Your task to perform on an android device: Open Amazon Image 0: 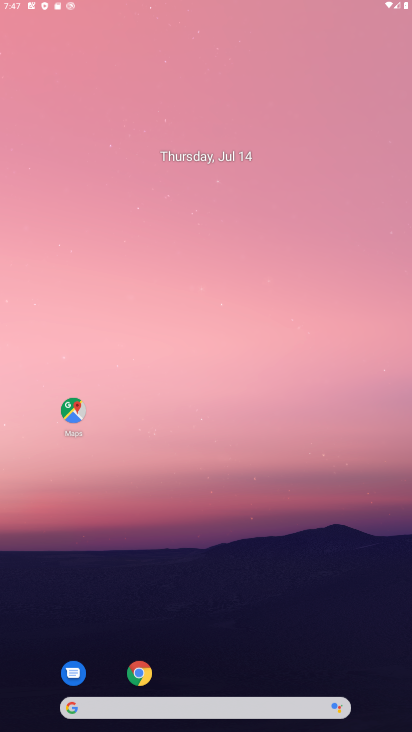
Step 0: drag from (214, 419) to (216, 185)
Your task to perform on an android device: Open Amazon Image 1: 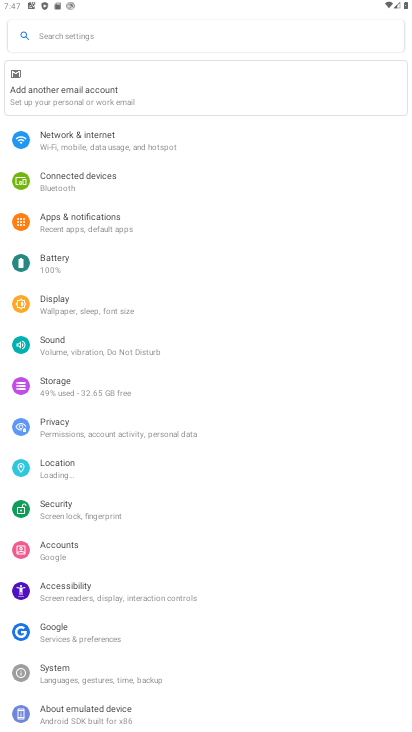
Step 1: press home button
Your task to perform on an android device: Open Amazon Image 2: 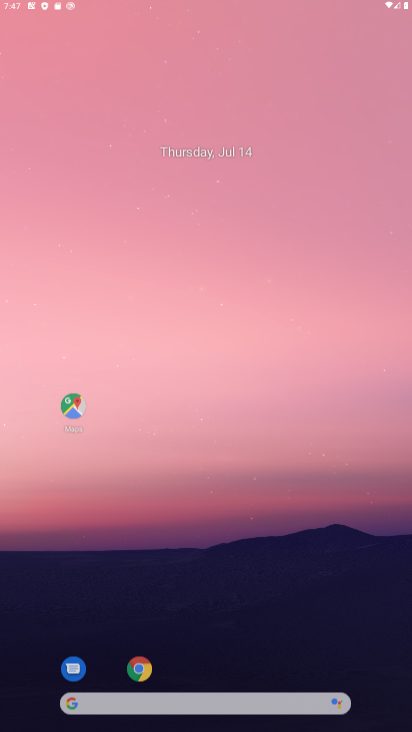
Step 2: drag from (184, 649) to (172, 370)
Your task to perform on an android device: Open Amazon Image 3: 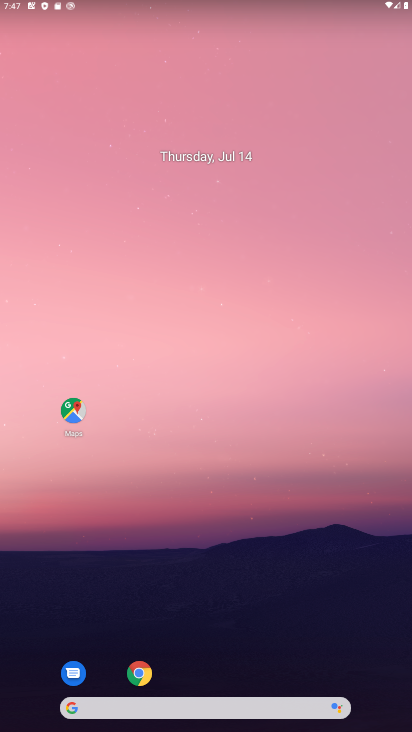
Step 3: click (139, 670)
Your task to perform on an android device: Open Amazon Image 4: 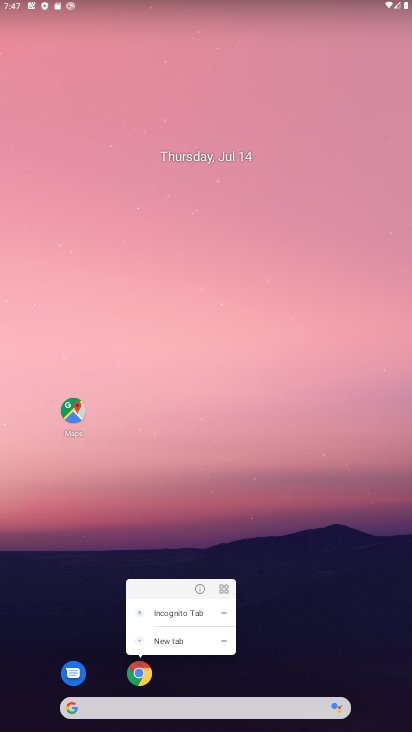
Step 4: click (202, 583)
Your task to perform on an android device: Open Amazon Image 5: 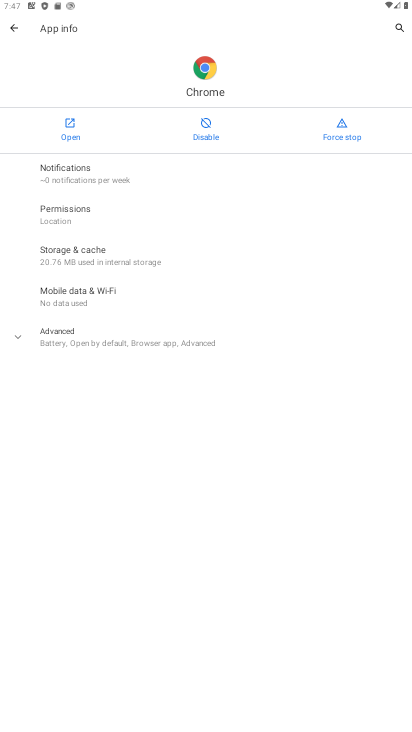
Step 5: click (64, 128)
Your task to perform on an android device: Open Amazon Image 6: 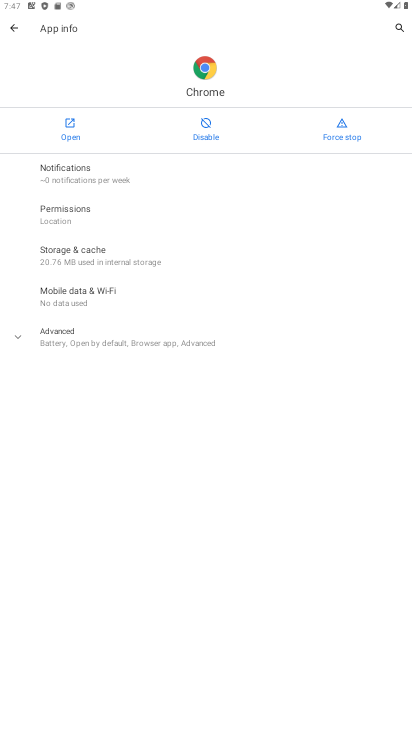
Step 6: click (64, 128)
Your task to perform on an android device: Open Amazon Image 7: 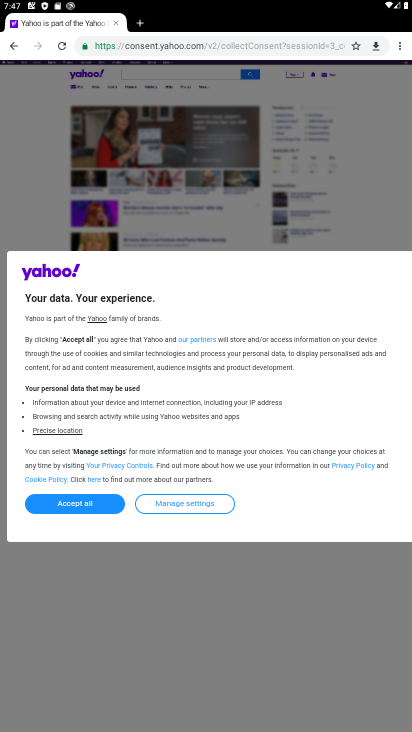
Step 7: click (138, 27)
Your task to perform on an android device: Open Amazon Image 8: 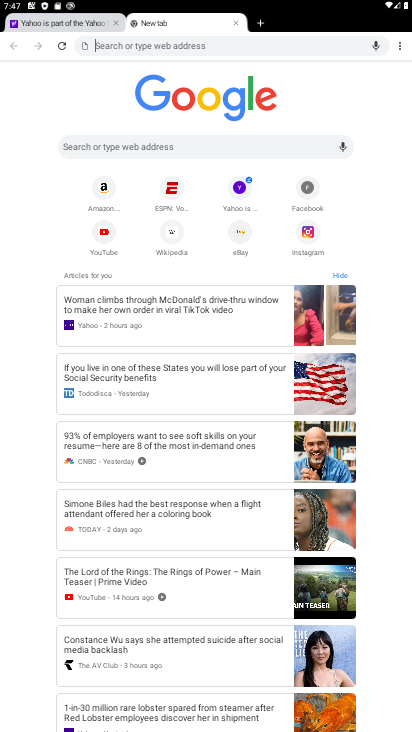
Step 8: click (96, 187)
Your task to perform on an android device: Open Amazon Image 9: 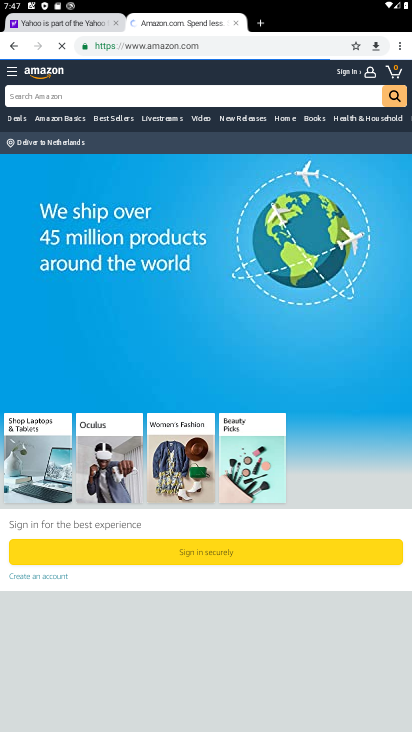
Step 9: task complete